Your task to perform on an android device: see sites visited before in the chrome app Image 0: 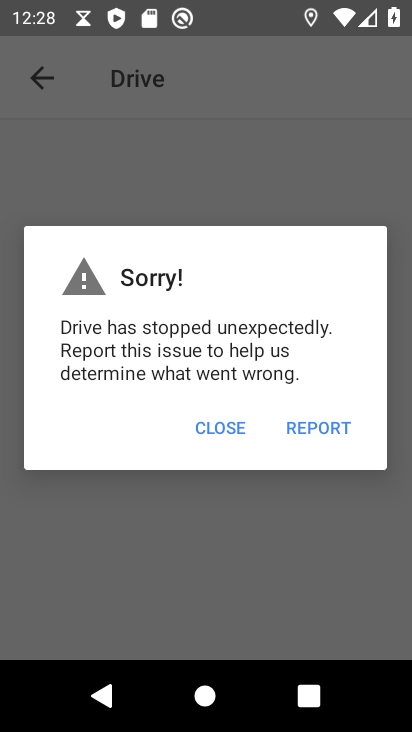
Step 0: press back button
Your task to perform on an android device: see sites visited before in the chrome app Image 1: 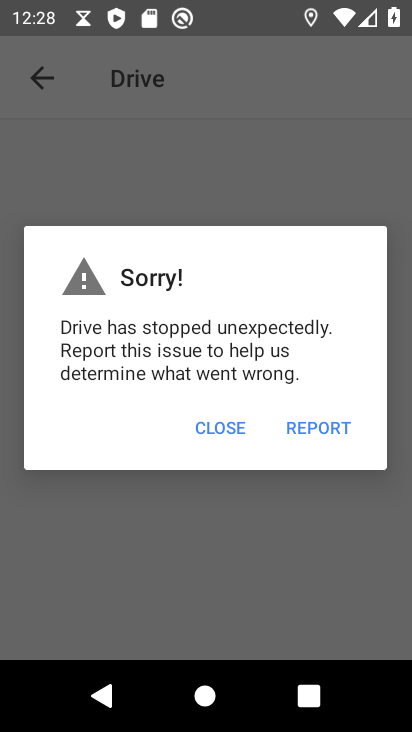
Step 1: press home button
Your task to perform on an android device: see sites visited before in the chrome app Image 2: 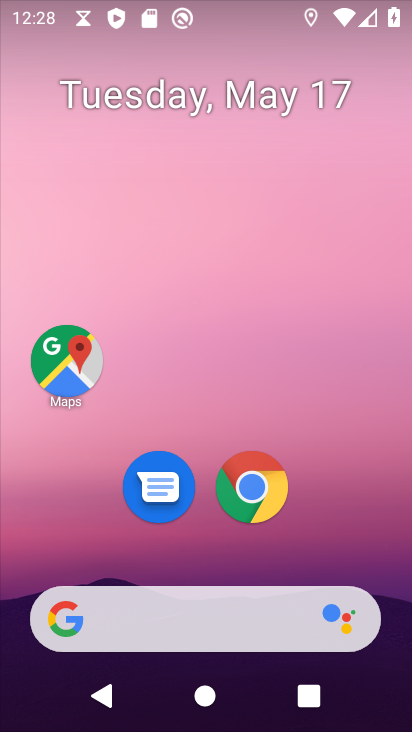
Step 2: click (258, 478)
Your task to perform on an android device: see sites visited before in the chrome app Image 3: 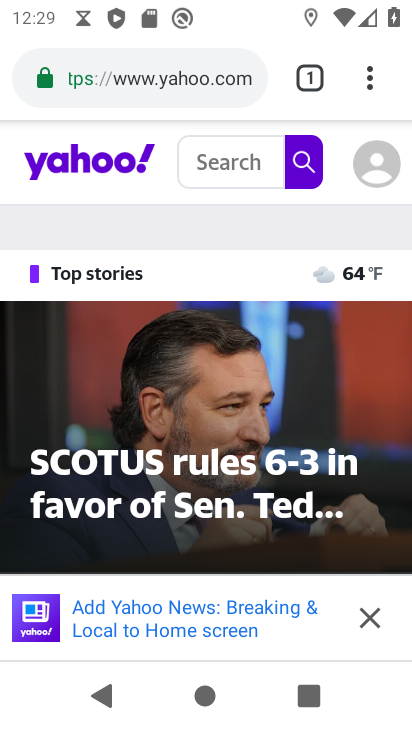
Step 3: task complete